Your task to perform on an android device: Open Maps and search for coffee Image 0: 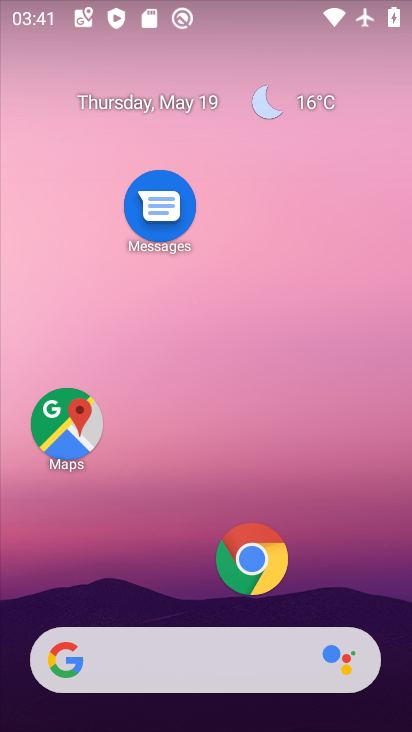
Step 0: click (78, 402)
Your task to perform on an android device: Open Maps and search for coffee Image 1: 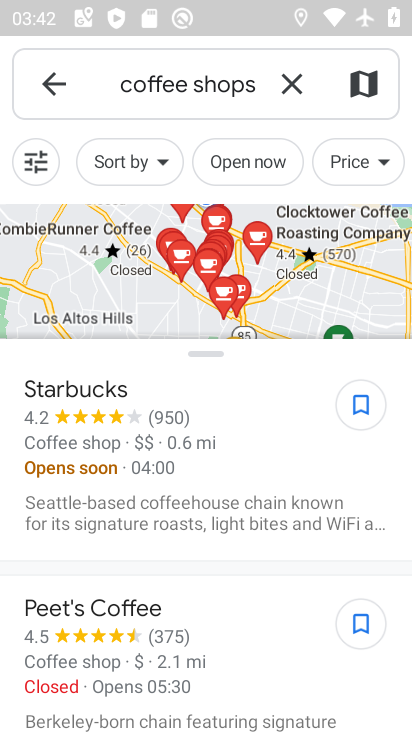
Step 1: click (296, 78)
Your task to perform on an android device: Open Maps and search for coffee Image 2: 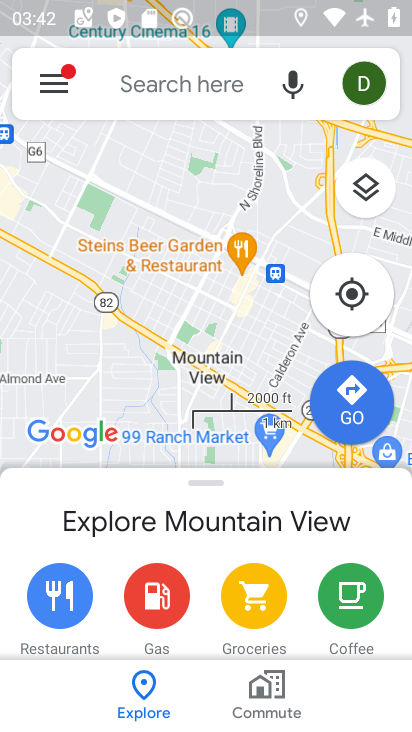
Step 2: click (168, 92)
Your task to perform on an android device: Open Maps and search for coffee Image 3: 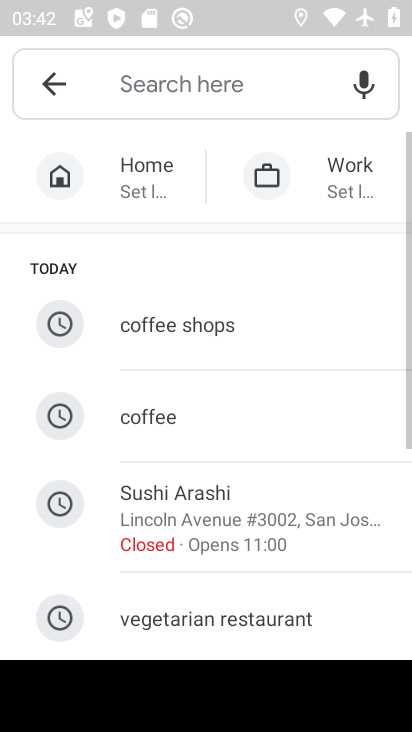
Step 3: click (190, 409)
Your task to perform on an android device: Open Maps and search for coffee Image 4: 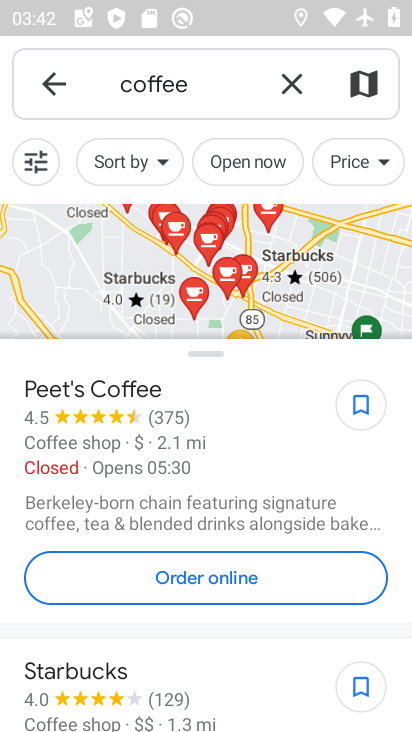
Step 4: task complete